Your task to perform on an android device: Open accessibility settings Image 0: 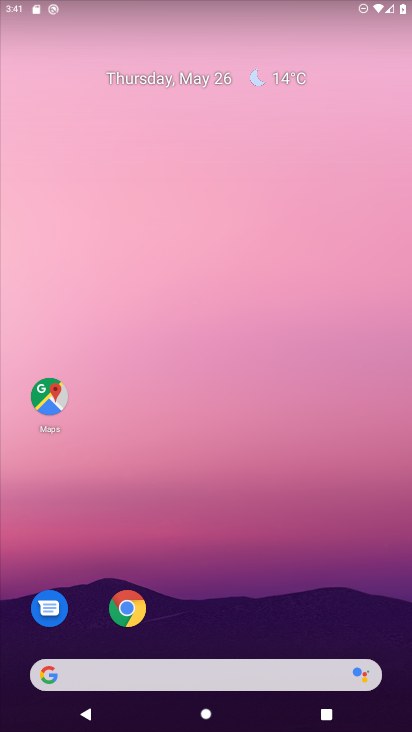
Step 0: task complete